Your task to perform on an android device: toggle translation in the chrome app Image 0: 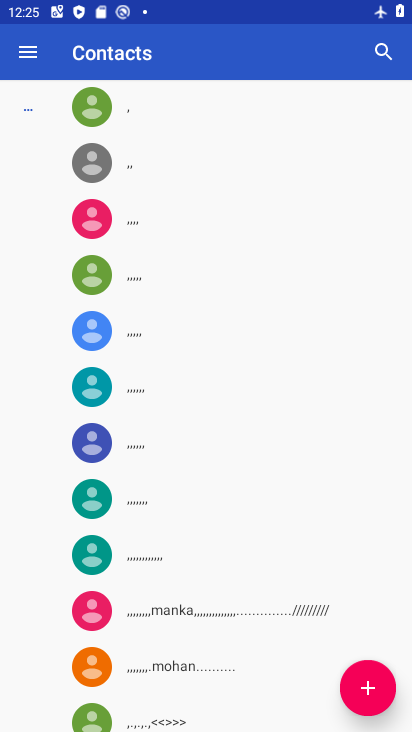
Step 0: press home button
Your task to perform on an android device: toggle translation in the chrome app Image 1: 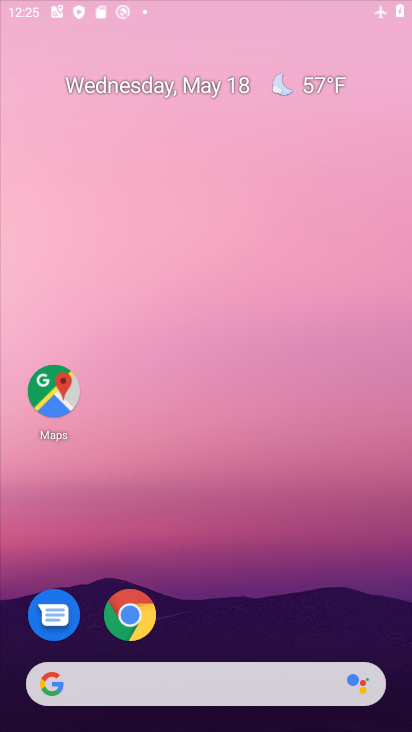
Step 1: drag from (376, 633) to (326, 75)
Your task to perform on an android device: toggle translation in the chrome app Image 2: 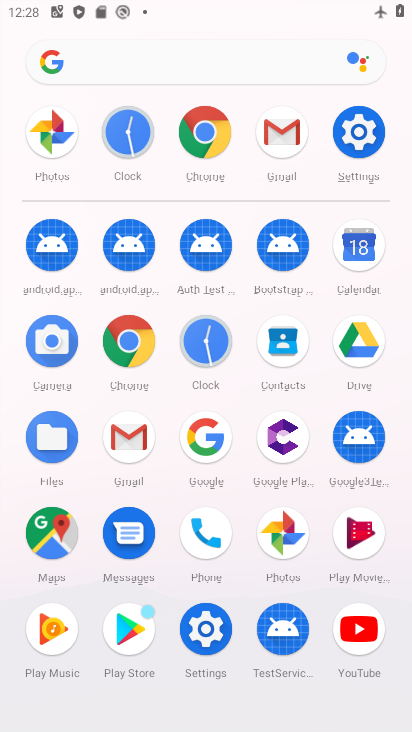
Step 2: click (121, 339)
Your task to perform on an android device: toggle translation in the chrome app Image 3: 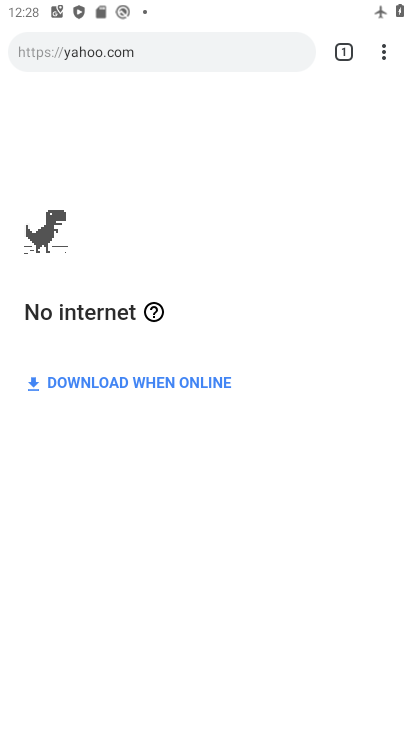
Step 3: click (394, 47)
Your task to perform on an android device: toggle translation in the chrome app Image 4: 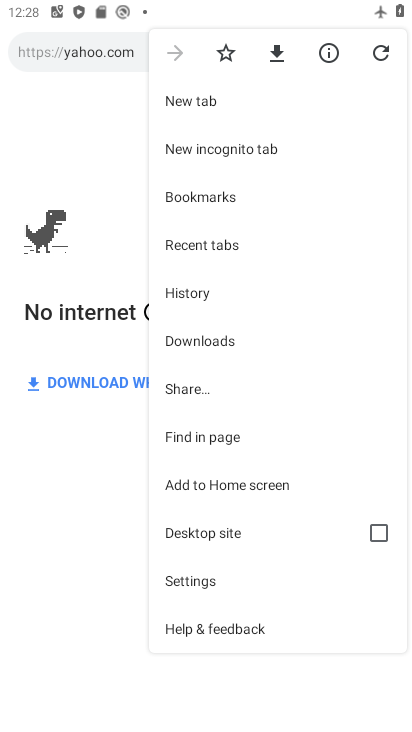
Step 4: click (227, 584)
Your task to perform on an android device: toggle translation in the chrome app Image 5: 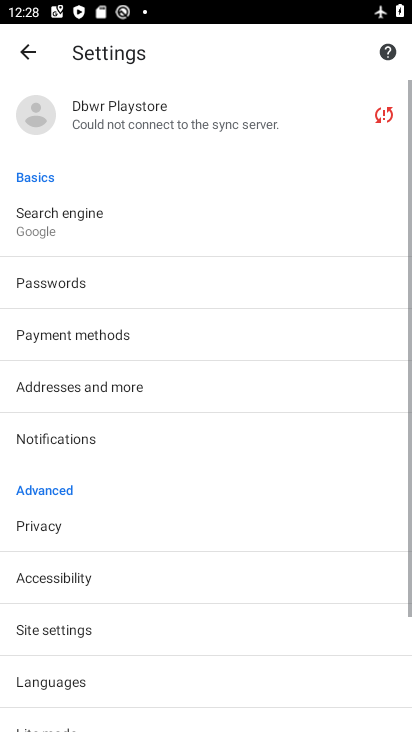
Step 5: click (70, 688)
Your task to perform on an android device: toggle translation in the chrome app Image 6: 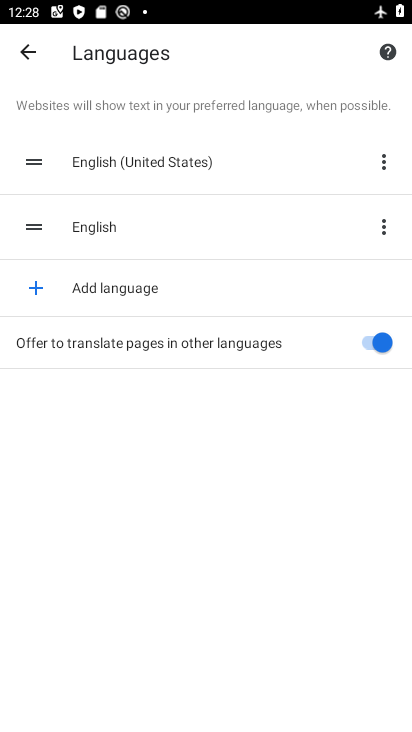
Step 6: click (376, 345)
Your task to perform on an android device: toggle translation in the chrome app Image 7: 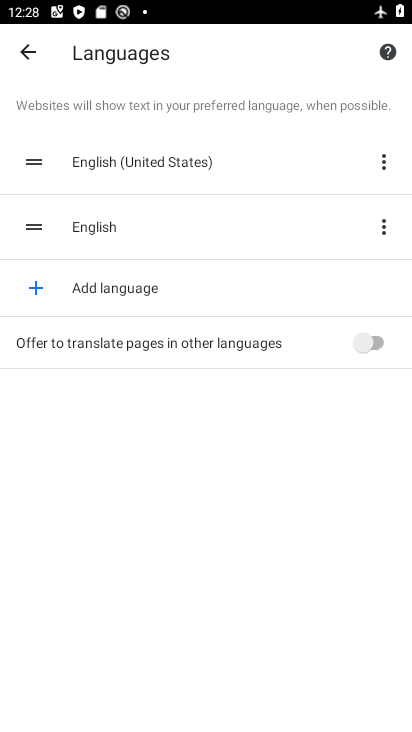
Step 7: task complete